Your task to perform on an android device: Open network settings Image 0: 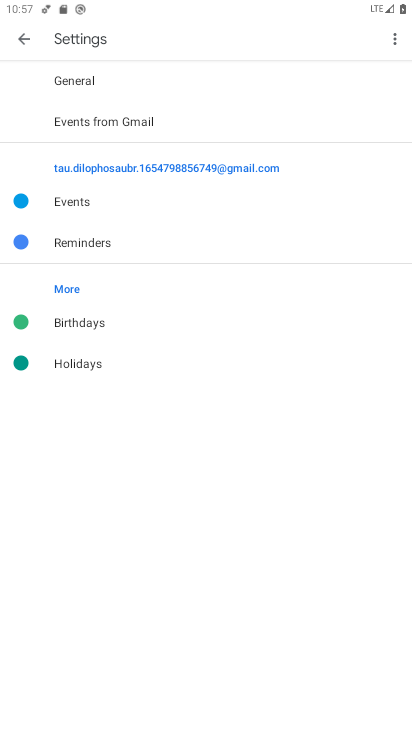
Step 0: press home button
Your task to perform on an android device: Open network settings Image 1: 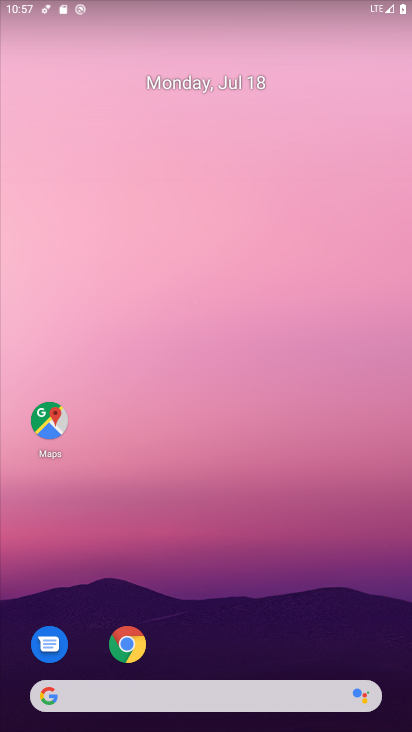
Step 1: drag from (354, 595) to (354, 141)
Your task to perform on an android device: Open network settings Image 2: 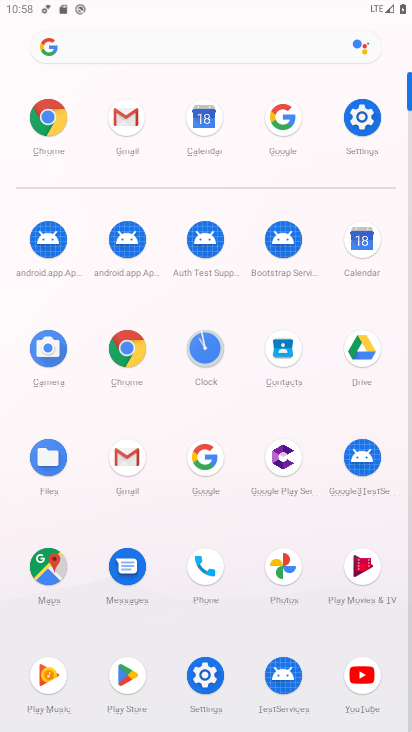
Step 2: click (359, 124)
Your task to perform on an android device: Open network settings Image 3: 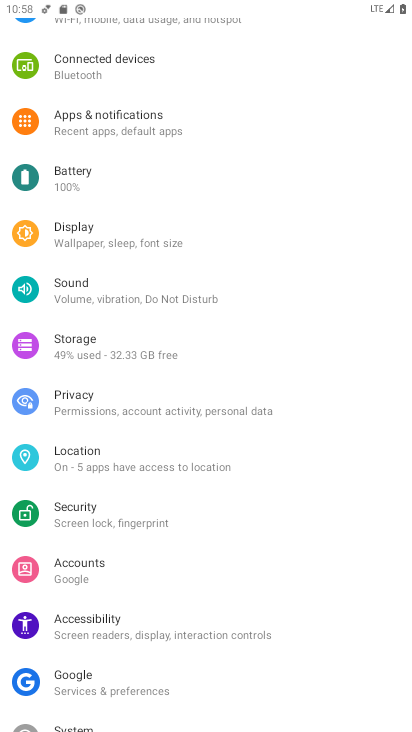
Step 3: drag from (351, 265) to (352, 356)
Your task to perform on an android device: Open network settings Image 4: 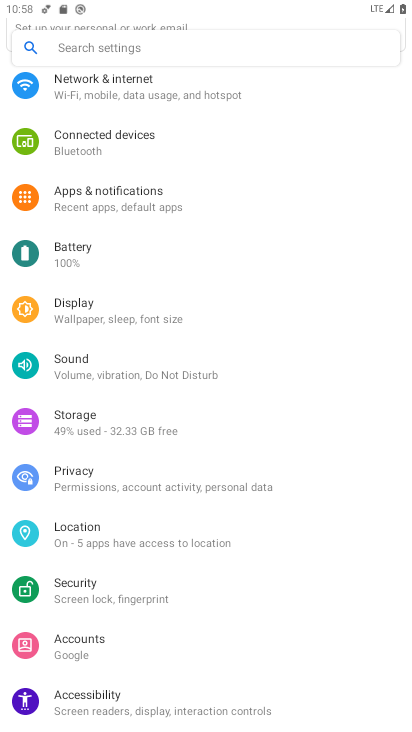
Step 4: drag from (351, 228) to (356, 313)
Your task to perform on an android device: Open network settings Image 5: 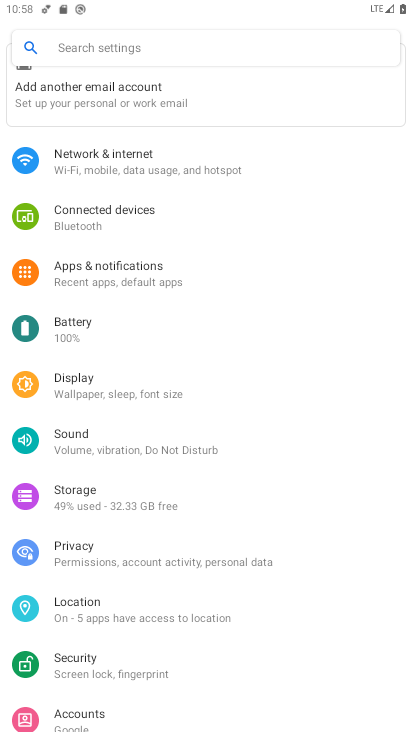
Step 5: drag from (354, 210) to (349, 325)
Your task to perform on an android device: Open network settings Image 6: 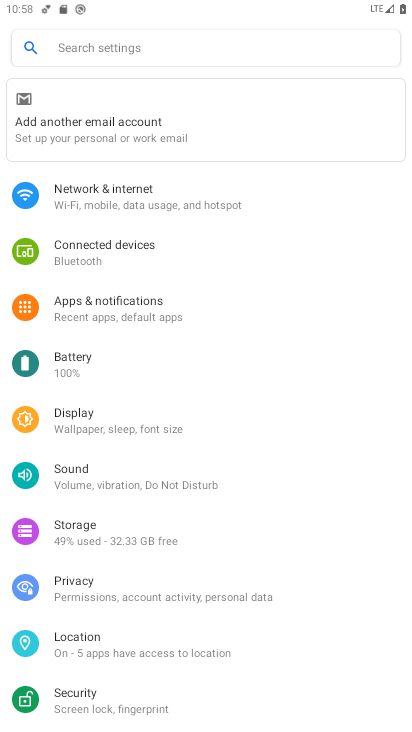
Step 6: click (248, 203)
Your task to perform on an android device: Open network settings Image 7: 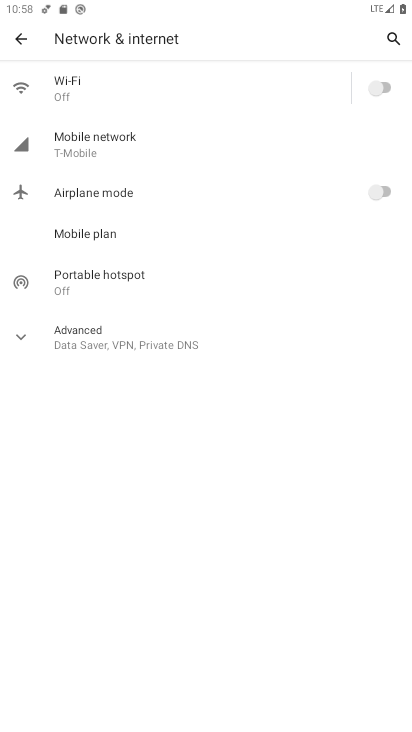
Step 7: task complete